Your task to perform on an android device: Go to Google Image 0: 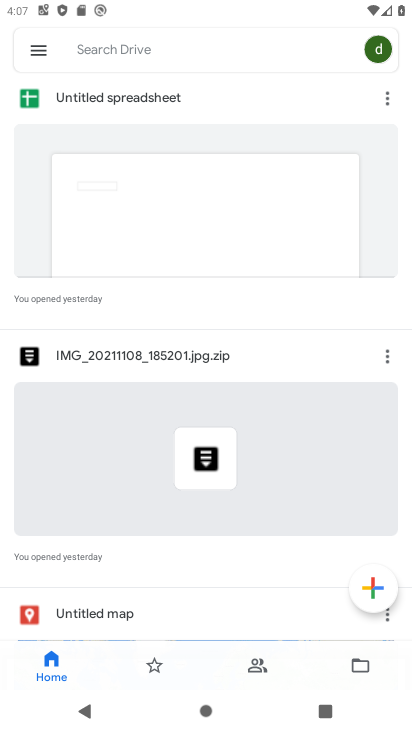
Step 0: press home button
Your task to perform on an android device: Go to Google Image 1: 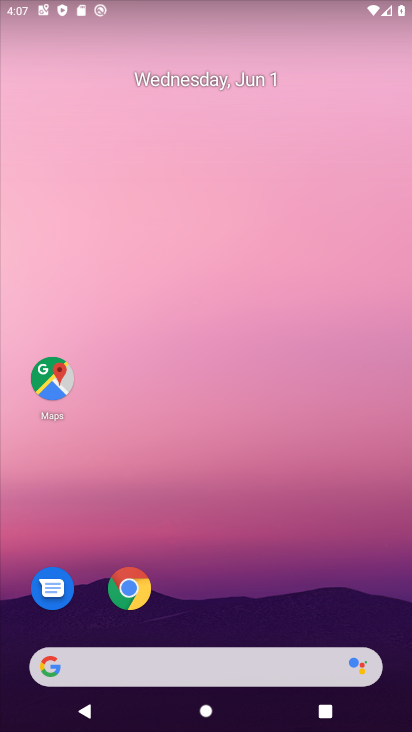
Step 1: drag from (228, 602) to (194, 357)
Your task to perform on an android device: Go to Google Image 2: 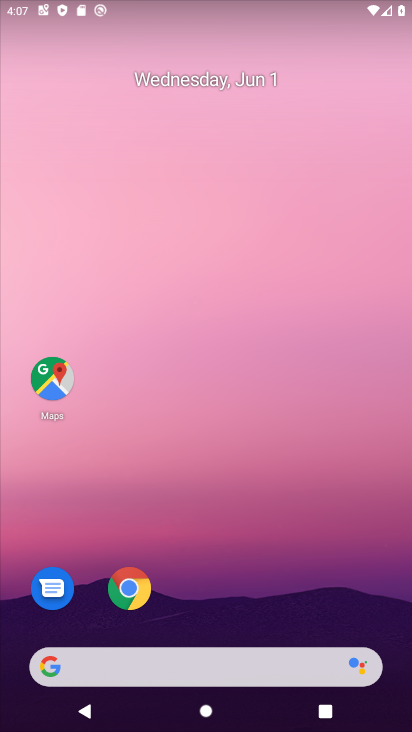
Step 2: drag from (210, 601) to (153, 222)
Your task to perform on an android device: Go to Google Image 3: 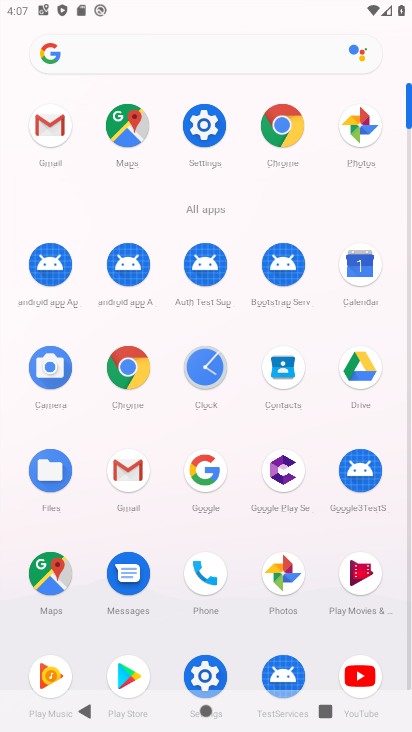
Step 3: click (208, 473)
Your task to perform on an android device: Go to Google Image 4: 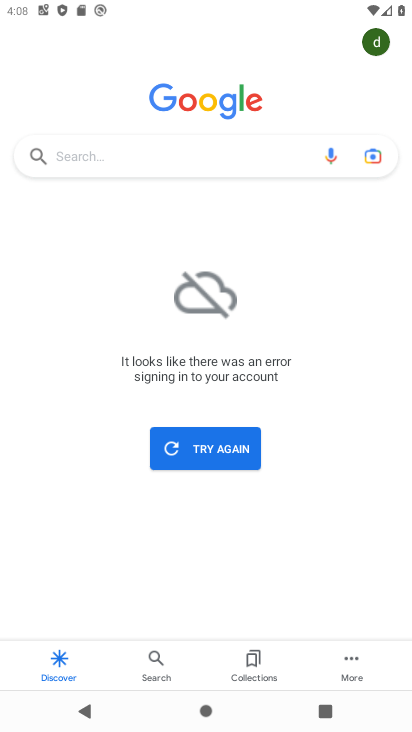
Step 4: task complete